Your task to perform on an android device: turn off wifi Image 0: 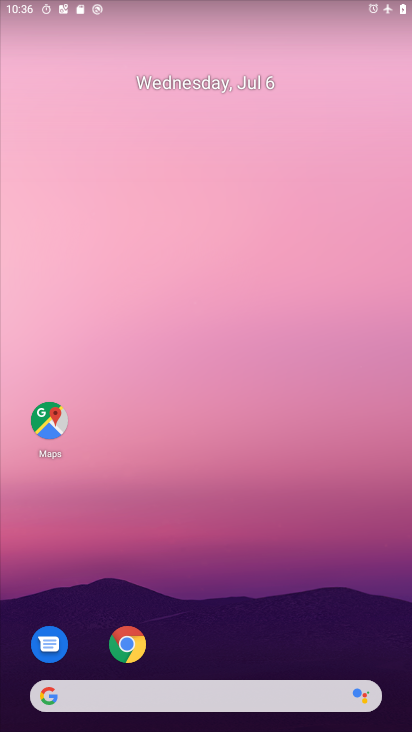
Step 0: drag from (243, 667) to (250, 101)
Your task to perform on an android device: turn off wifi Image 1: 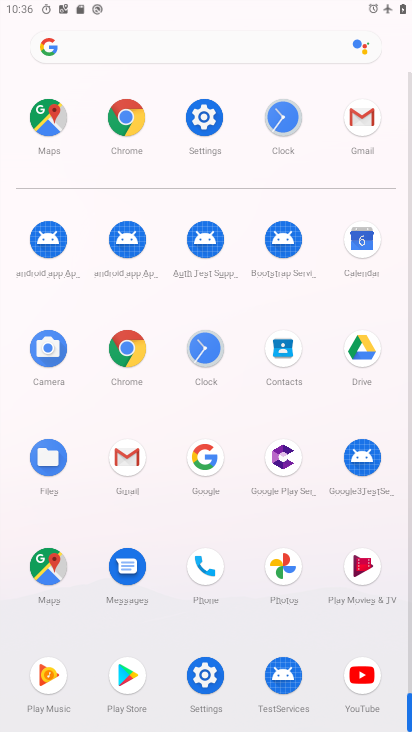
Step 1: click (204, 124)
Your task to perform on an android device: turn off wifi Image 2: 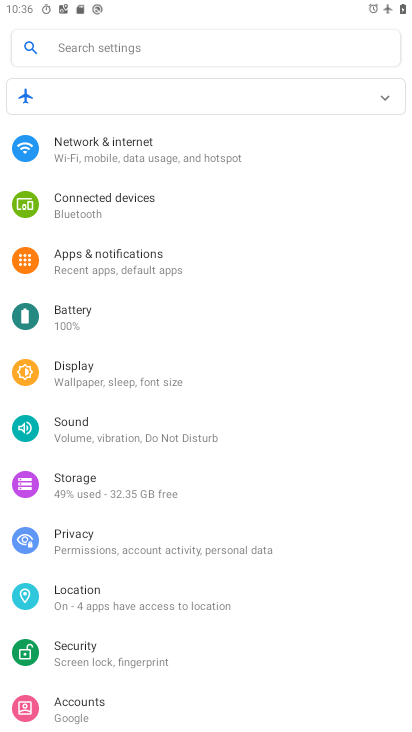
Step 2: click (112, 155)
Your task to perform on an android device: turn off wifi Image 3: 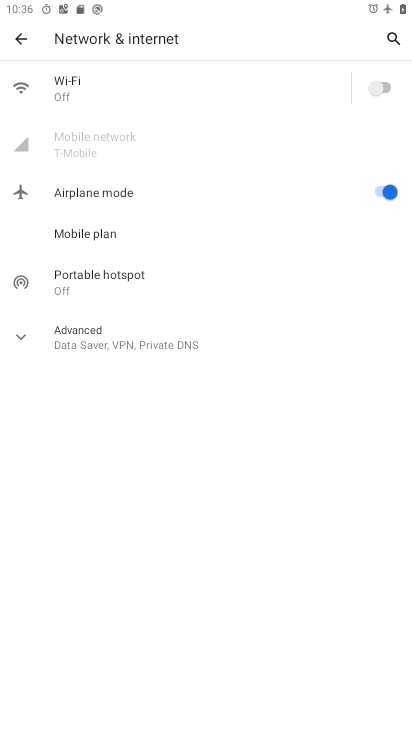
Step 3: task complete